Your task to perform on an android device: Go to calendar. Show me events next week Image 0: 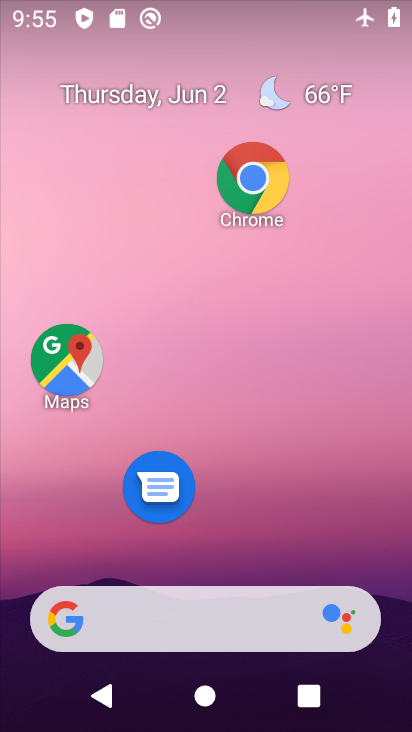
Step 0: drag from (240, 714) to (236, 173)
Your task to perform on an android device: Go to calendar. Show me events next week Image 1: 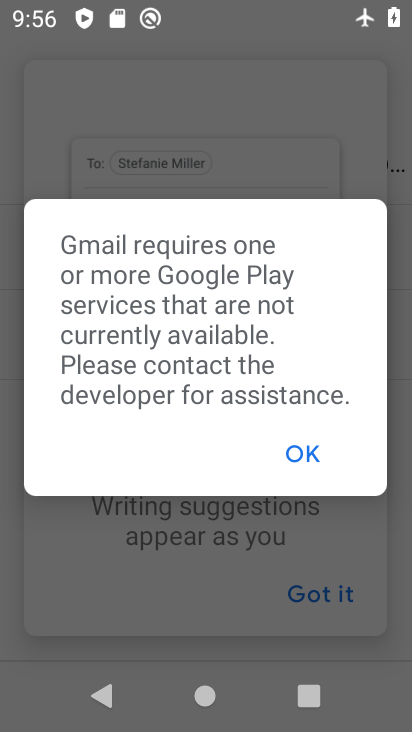
Step 1: press home button
Your task to perform on an android device: Go to calendar. Show me events next week Image 2: 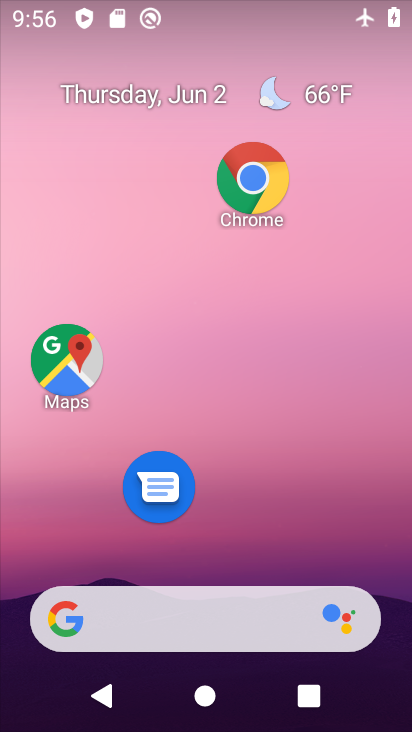
Step 2: drag from (233, 702) to (204, 139)
Your task to perform on an android device: Go to calendar. Show me events next week Image 3: 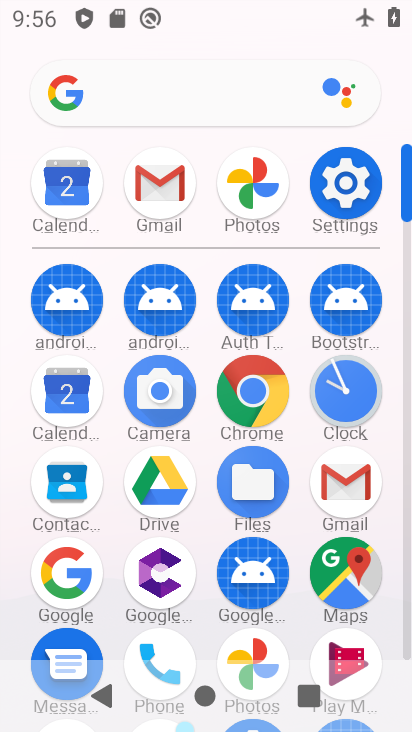
Step 3: click (76, 400)
Your task to perform on an android device: Go to calendar. Show me events next week Image 4: 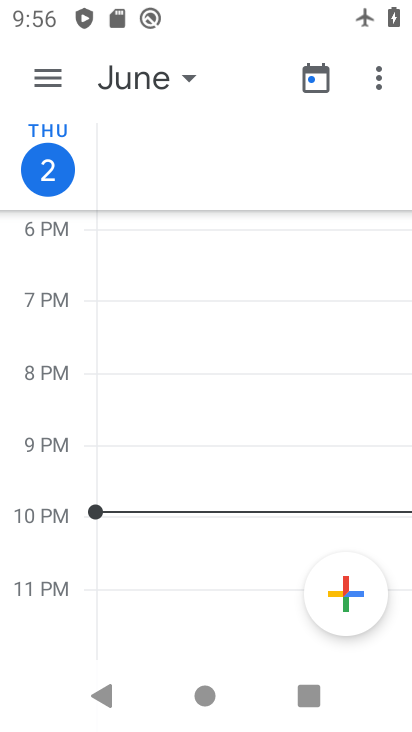
Step 4: click (161, 82)
Your task to perform on an android device: Go to calendar. Show me events next week Image 5: 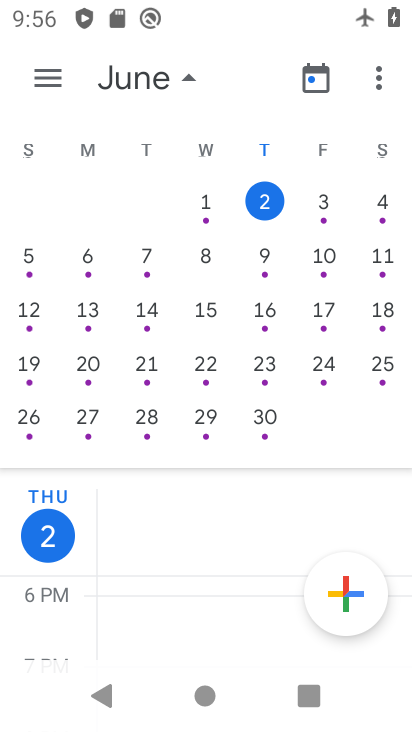
Step 5: click (86, 254)
Your task to perform on an android device: Go to calendar. Show me events next week Image 6: 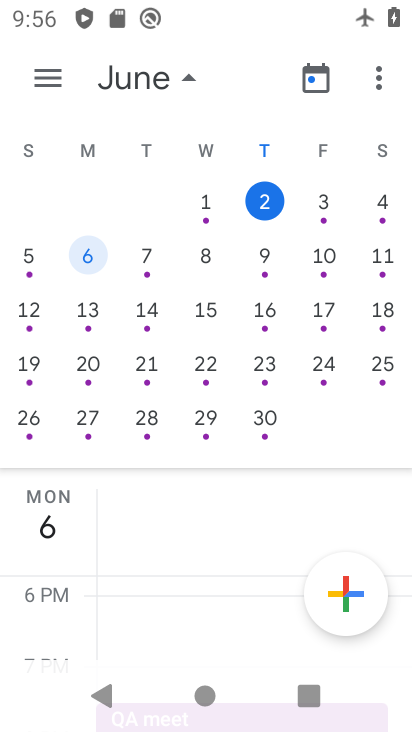
Step 6: click (86, 254)
Your task to perform on an android device: Go to calendar. Show me events next week Image 7: 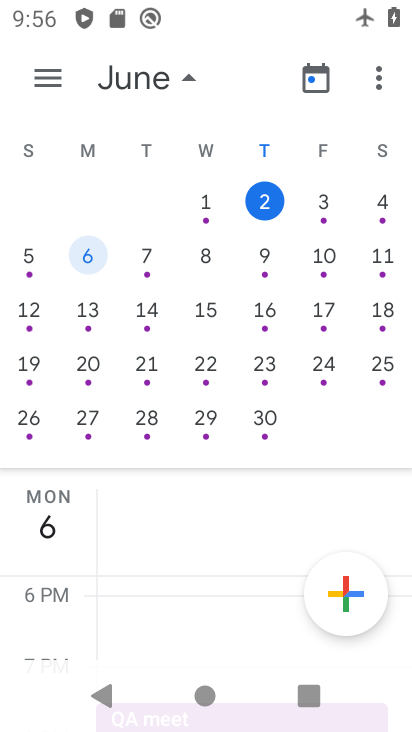
Step 7: click (40, 72)
Your task to perform on an android device: Go to calendar. Show me events next week Image 8: 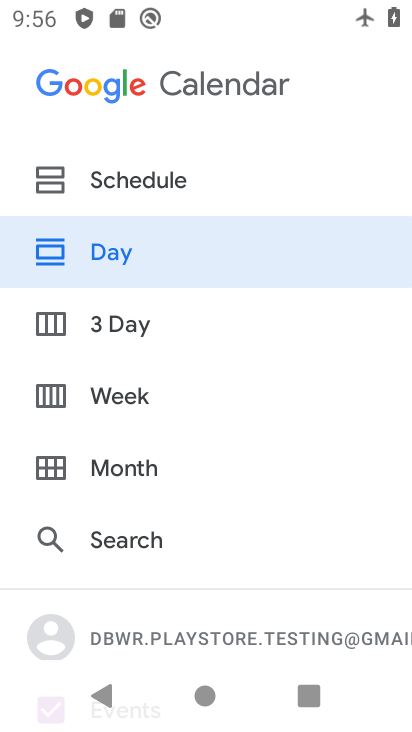
Step 8: click (116, 393)
Your task to perform on an android device: Go to calendar. Show me events next week Image 9: 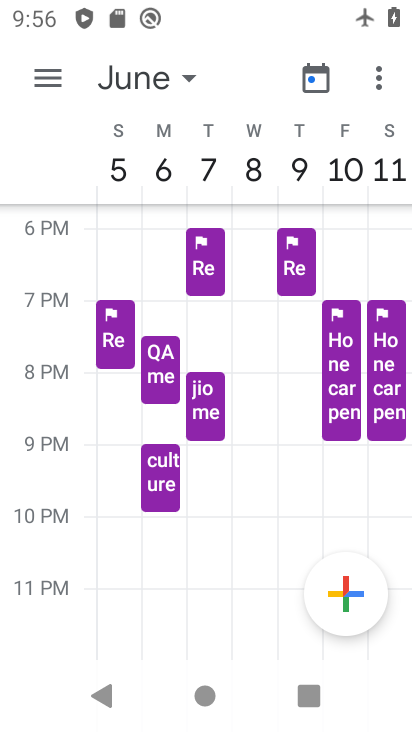
Step 9: task complete